Your task to perform on an android device: star an email in the gmail app Image 0: 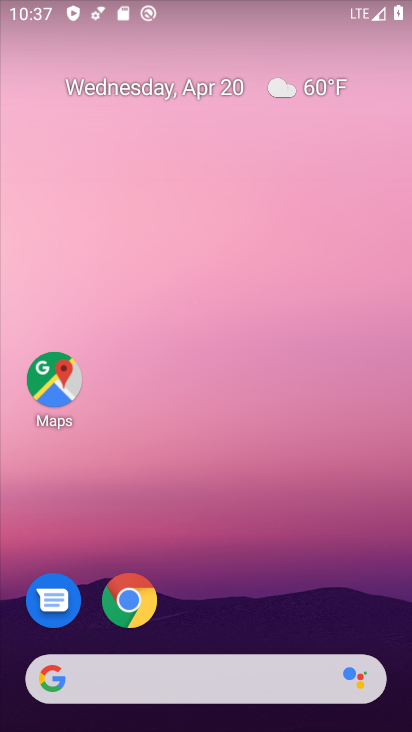
Step 0: drag from (344, 557) to (324, 59)
Your task to perform on an android device: star an email in the gmail app Image 1: 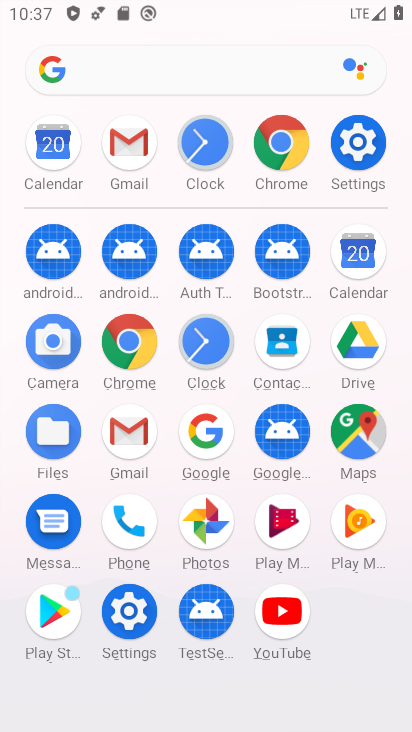
Step 1: click (141, 429)
Your task to perform on an android device: star an email in the gmail app Image 2: 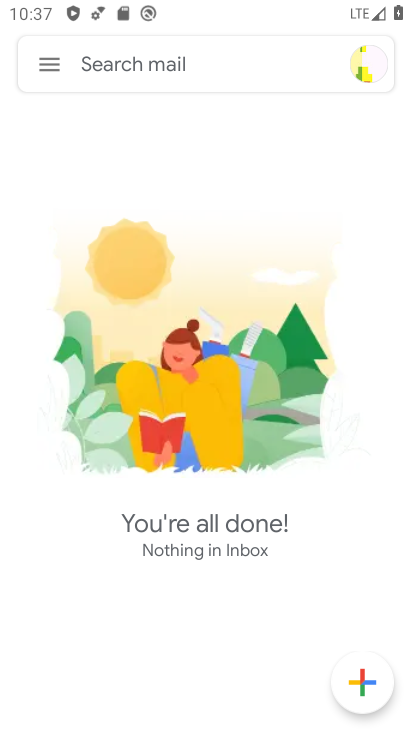
Step 2: click (42, 73)
Your task to perform on an android device: star an email in the gmail app Image 3: 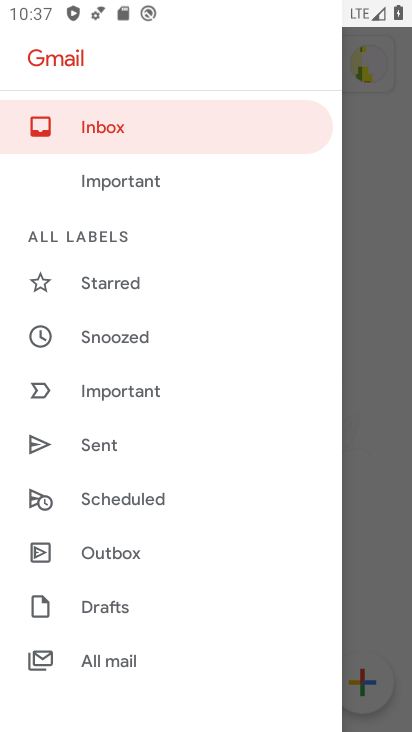
Step 3: drag from (198, 573) to (228, 79)
Your task to perform on an android device: star an email in the gmail app Image 4: 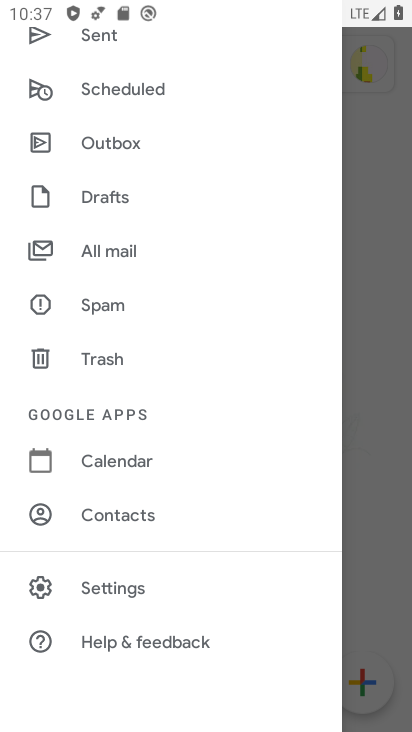
Step 4: drag from (168, 252) to (177, 519)
Your task to perform on an android device: star an email in the gmail app Image 5: 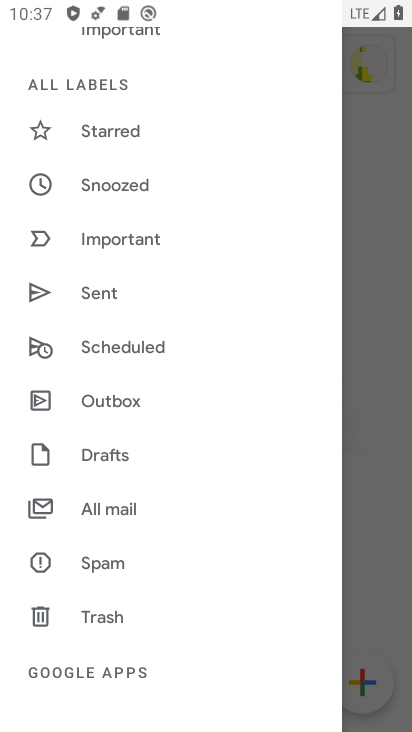
Step 5: click (120, 508)
Your task to perform on an android device: star an email in the gmail app Image 6: 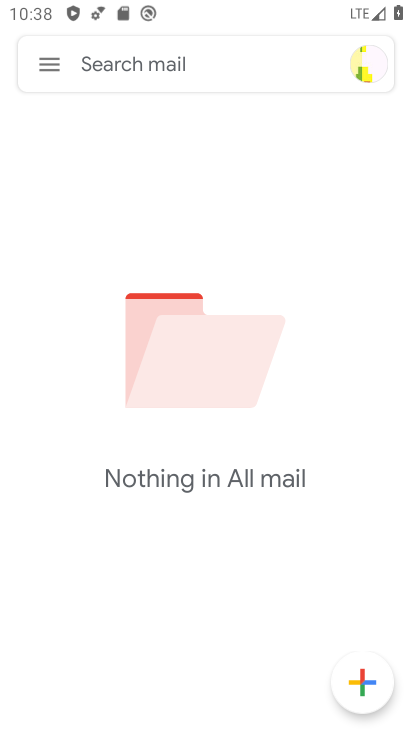
Step 6: task complete